Your task to perform on an android device: What's the weather? Image 0: 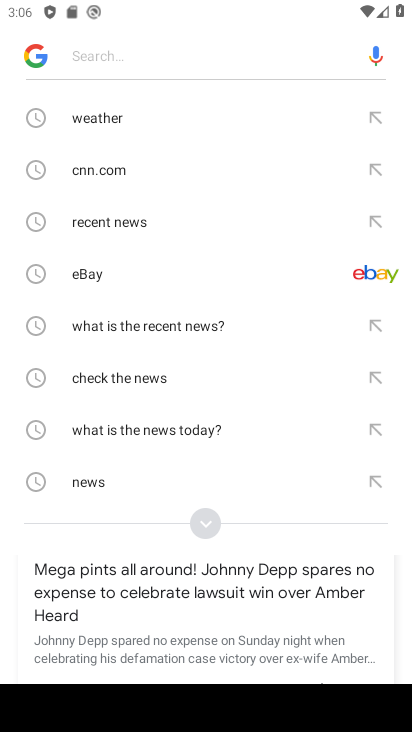
Step 0: click (101, 121)
Your task to perform on an android device: What's the weather? Image 1: 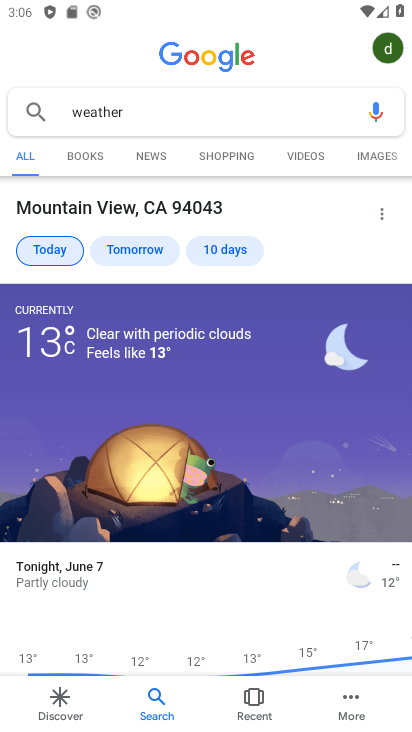
Step 1: task complete